Your task to perform on an android device: Toggle the flashlight Image 0: 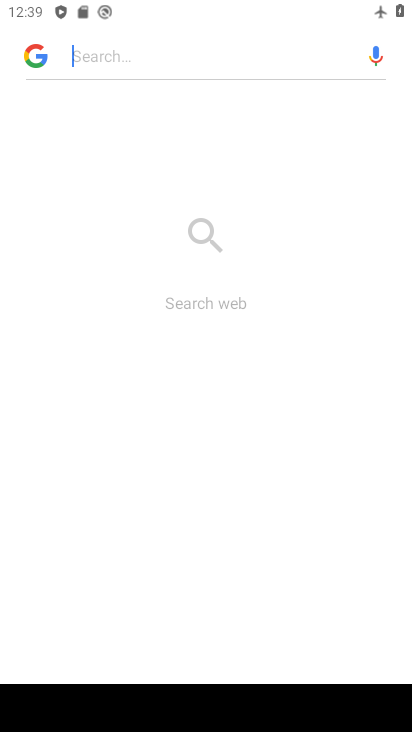
Step 0: press home button
Your task to perform on an android device: Toggle the flashlight Image 1: 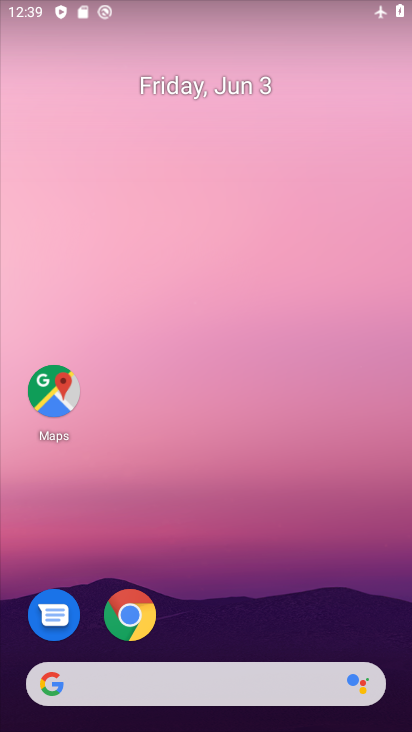
Step 1: drag from (229, 606) to (256, 7)
Your task to perform on an android device: Toggle the flashlight Image 2: 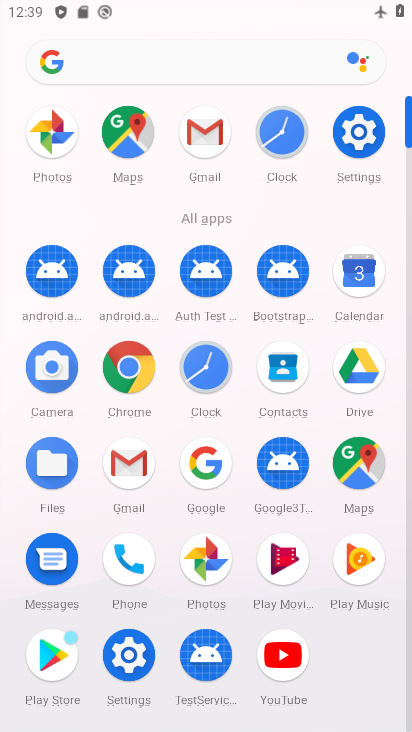
Step 2: click (369, 230)
Your task to perform on an android device: Toggle the flashlight Image 3: 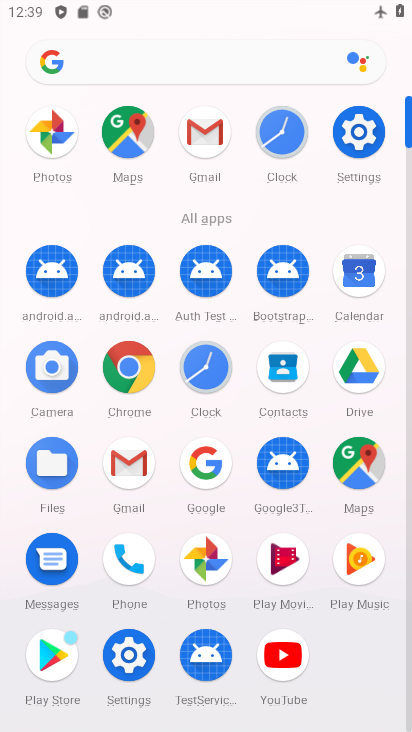
Step 3: click (372, 137)
Your task to perform on an android device: Toggle the flashlight Image 4: 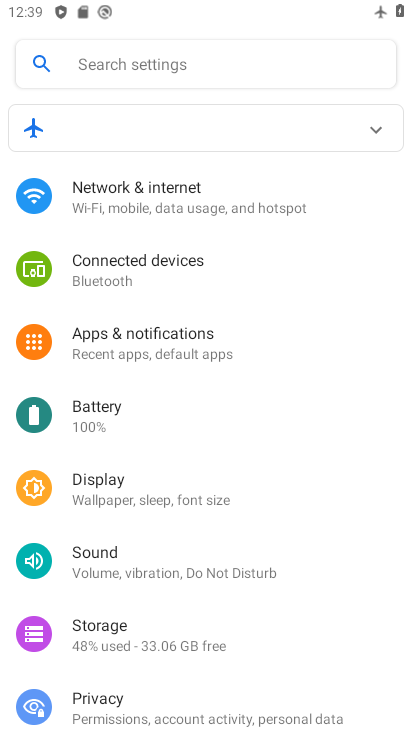
Step 4: click (243, 65)
Your task to perform on an android device: Toggle the flashlight Image 5: 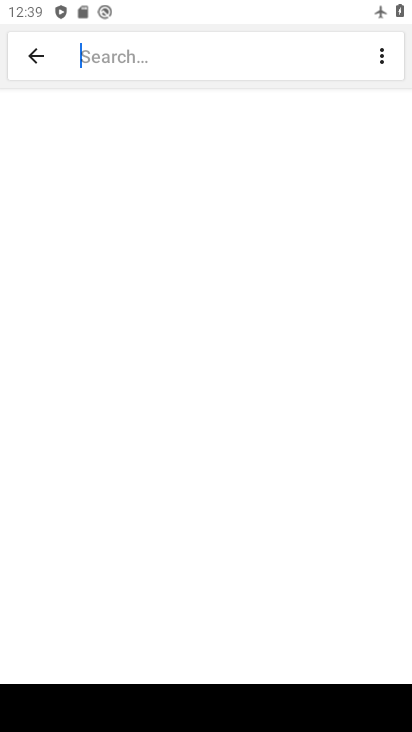
Step 5: type "flashlight"
Your task to perform on an android device: Toggle the flashlight Image 6: 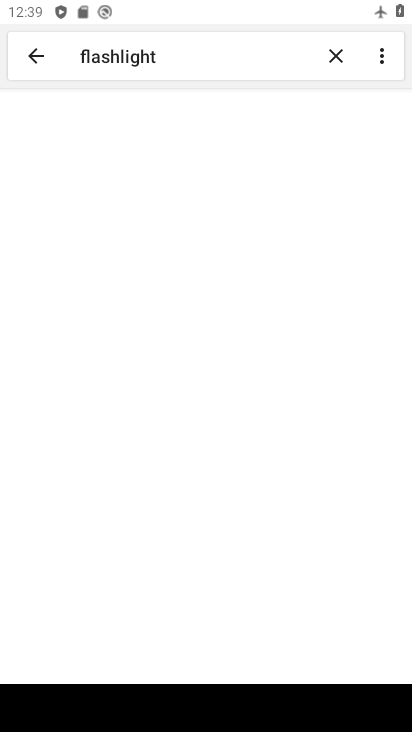
Step 6: click (146, 123)
Your task to perform on an android device: Toggle the flashlight Image 7: 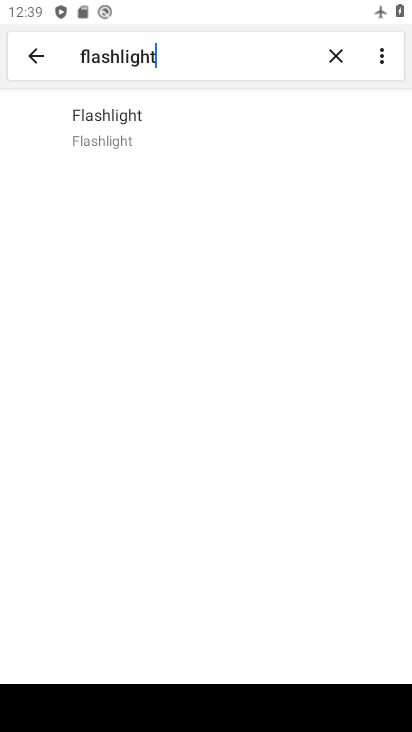
Step 7: click (153, 131)
Your task to perform on an android device: Toggle the flashlight Image 8: 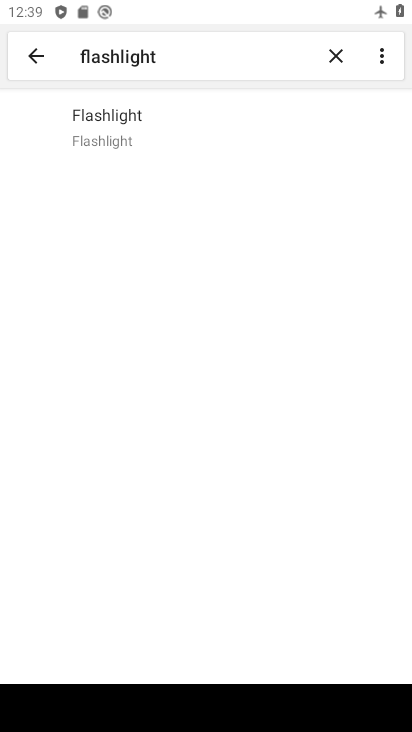
Step 8: click (155, 137)
Your task to perform on an android device: Toggle the flashlight Image 9: 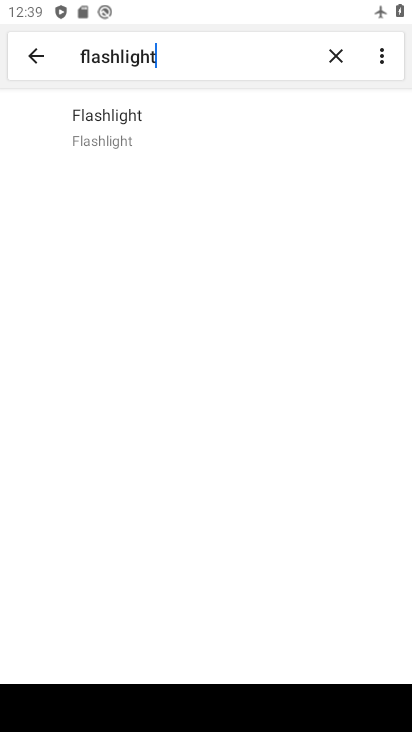
Step 9: task complete